Your task to perform on an android device: When is my next appointment? Image 0: 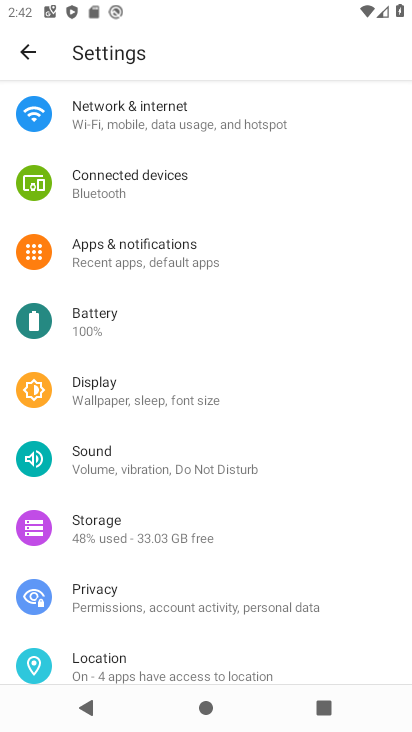
Step 0: press home button
Your task to perform on an android device: When is my next appointment? Image 1: 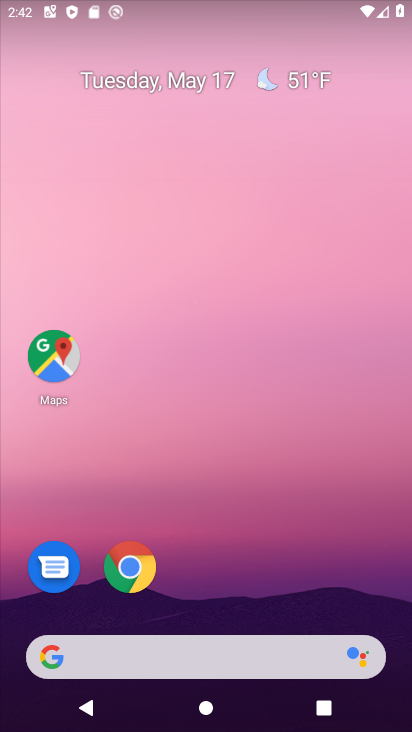
Step 1: drag from (227, 658) to (198, 275)
Your task to perform on an android device: When is my next appointment? Image 2: 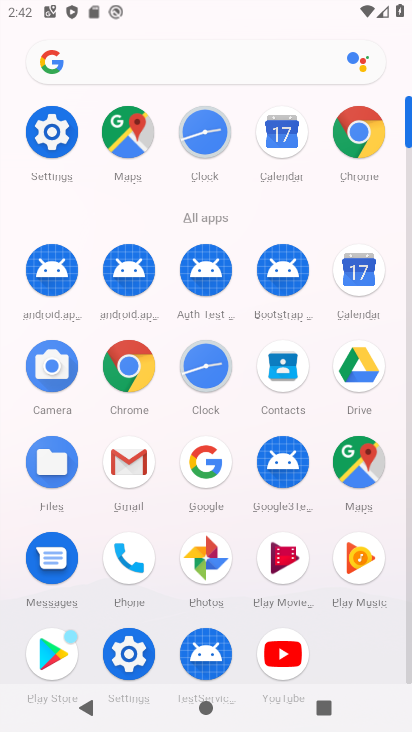
Step 2: click (355, 283)
Your task to perform on an android device: When is my next appointment? Image 3: 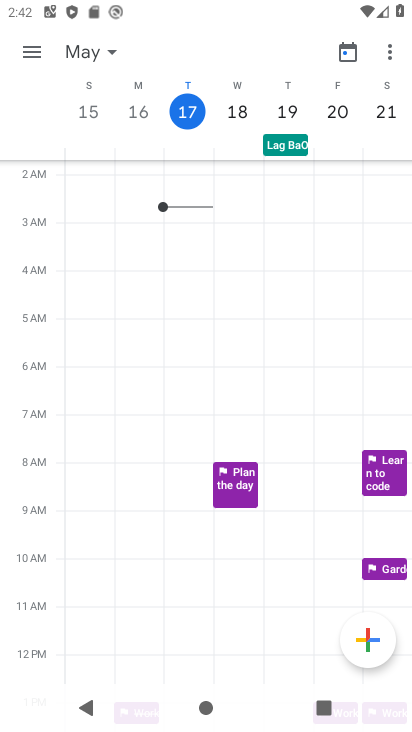
Step 3: click (35, 54)
Your task to perform on an android device: When is my next appointment? Image 4: 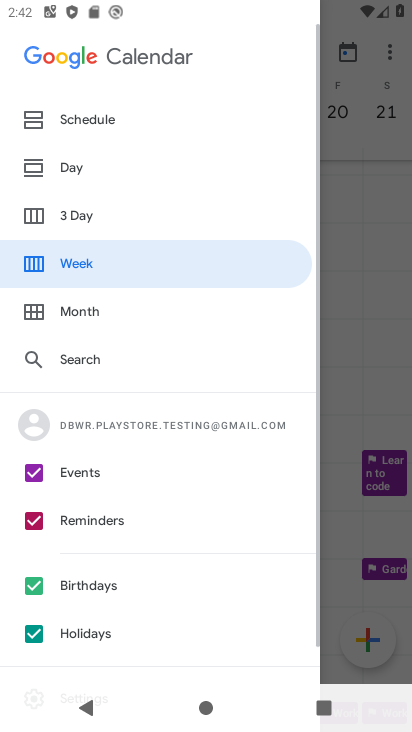
Step 4: click (87, 133)
Your task to perform on an android device: When is my next appointment? Image 5: 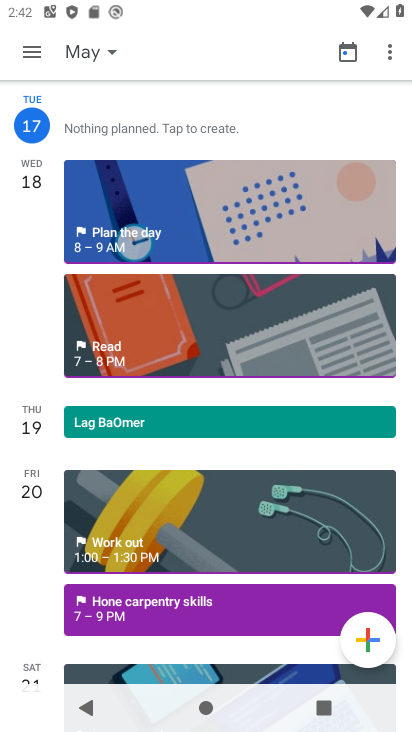
Step 5: task complete